Your task to perform on an android device: visit the assistant section in the google photos Image 0: 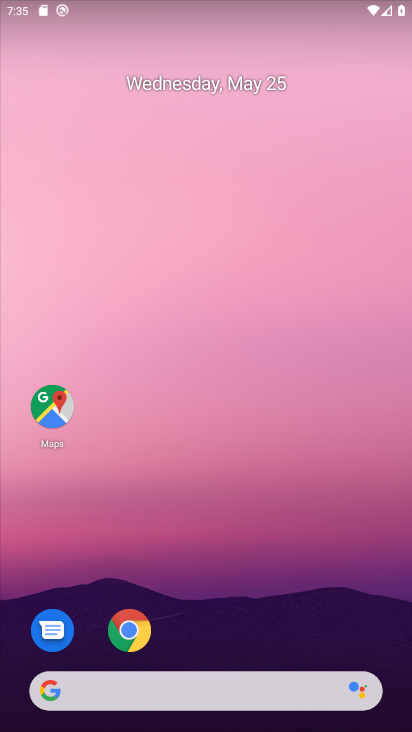
Step 0: drag from (259, 474) to (265, 194)
Your task to perform on an android device: visit the assistant section in the google photos Image 1: 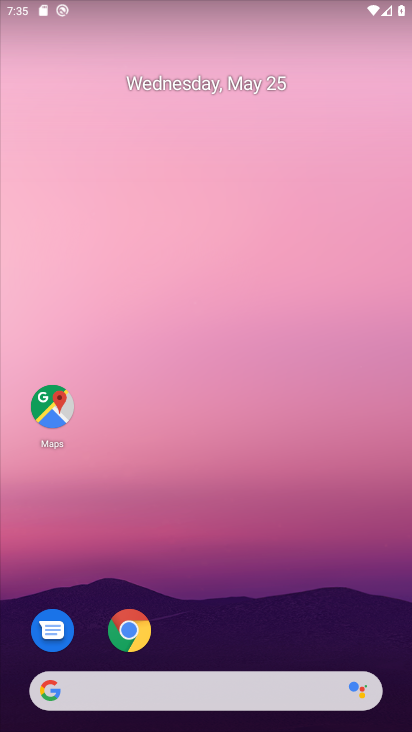
Step 1: drag from (269, 581) to (336, 212)
Your task to perform on an android device: visit the assistant section in the google photos Image 2: 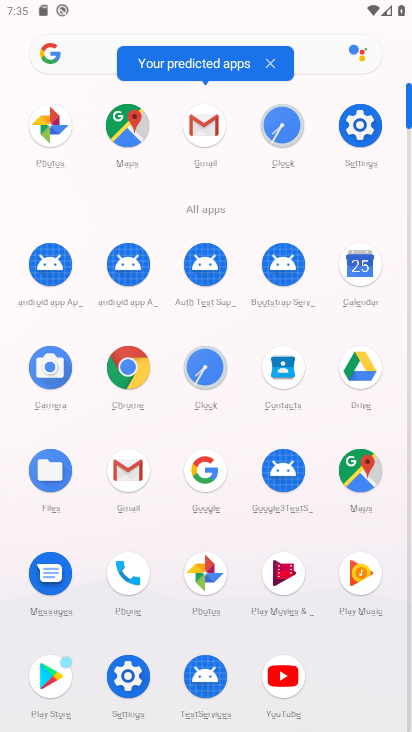
Step 2: click (203, 573)
Your task to perform on an android device: visit the assistant section in the google photos Image 3: 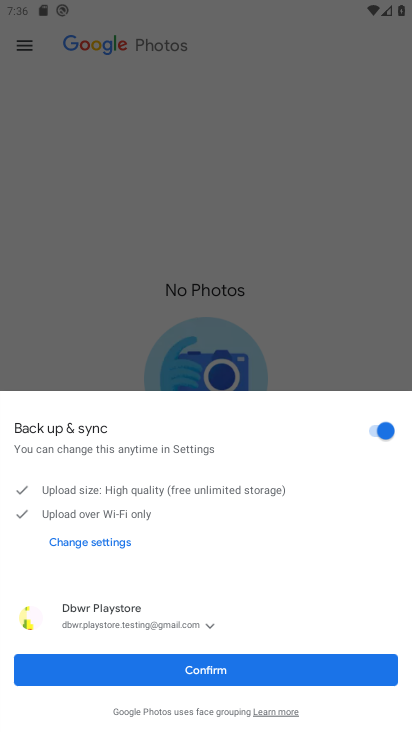
Step 3: click (218, 662)
Your task to perform on an android device: visit the assistant section in the google photos Image 4: 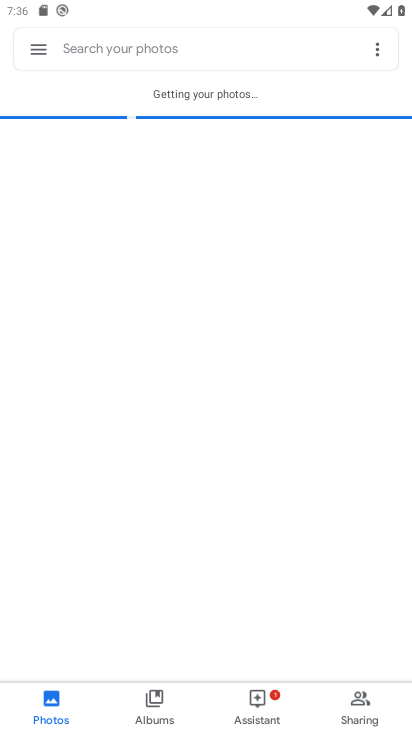
Step 4: click (255, 722)
Your task to perform on an android device: visit the assistant section in the google photos Image 5: 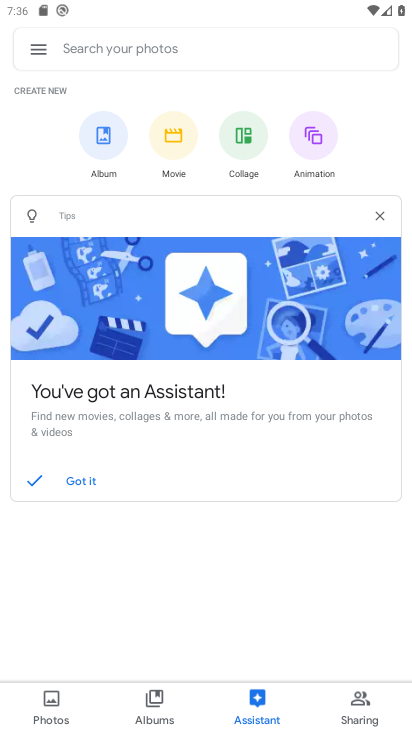
Step 5: task complete